Your task to perform on an android device: turn pop-ups off in chrome Image 0: 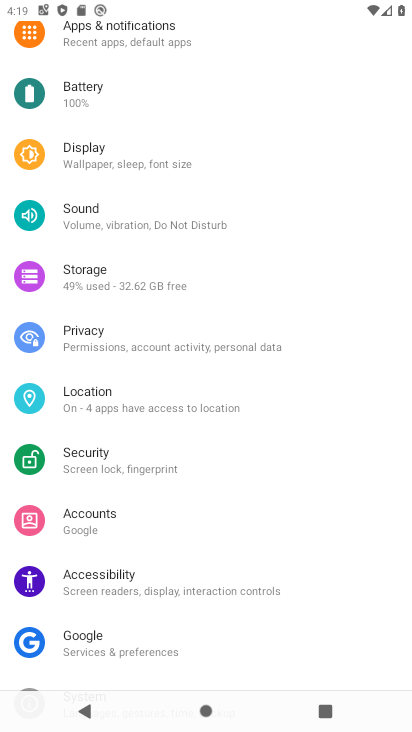
Step 0: press home button
Your task to perform on an android device: turn pop-ups off in chrome Image 1: 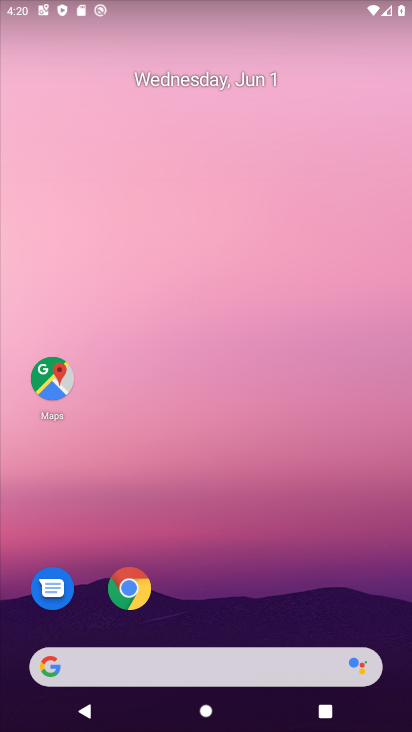
Step 1: click (138, 593)
Your task to perform on an android device: turn pop-ups off in chrome Image 2: 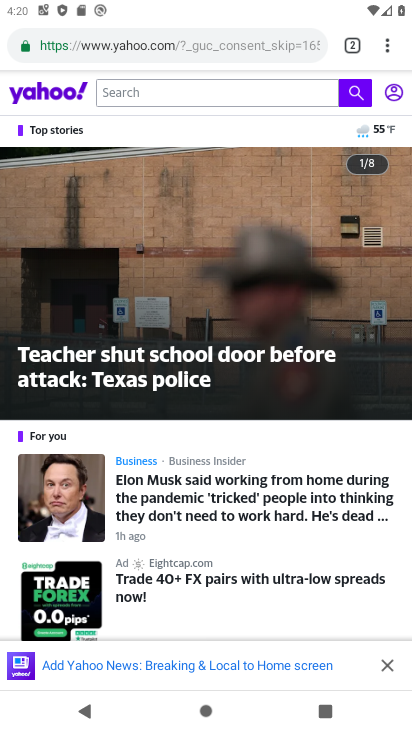
Step 2: click (385, 40)
Your task to perform on an android device: turn pop-ups off in chrome Image 3: 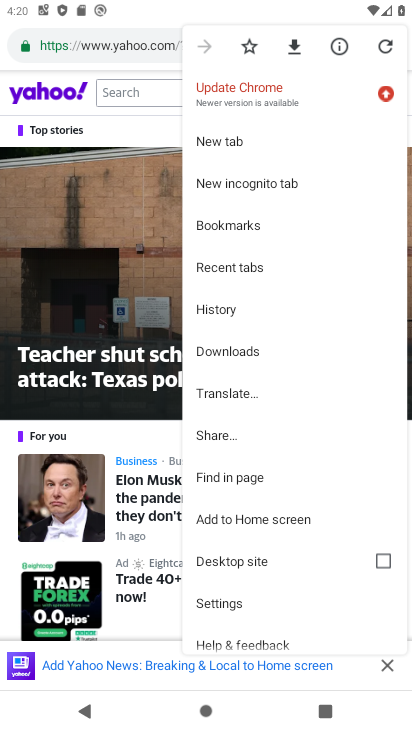
Step 3: click (233, 595)
Your task to perform on an android device: turn pop-ups off in chrome Image 4: 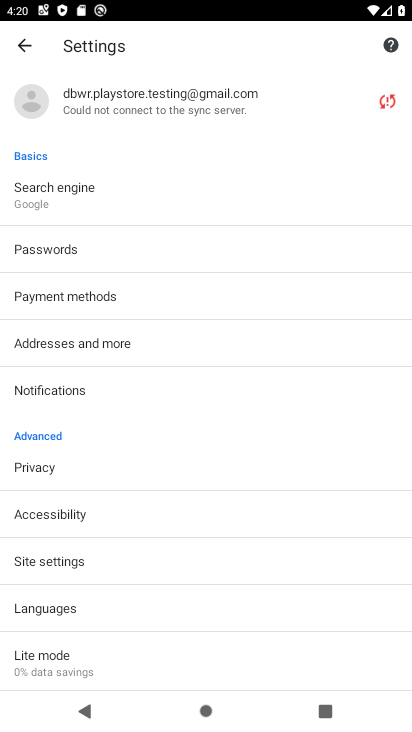
Step 4: click (129, 564)
Your task to perform on an android device: turn pop-ups off in chrome Image 5: 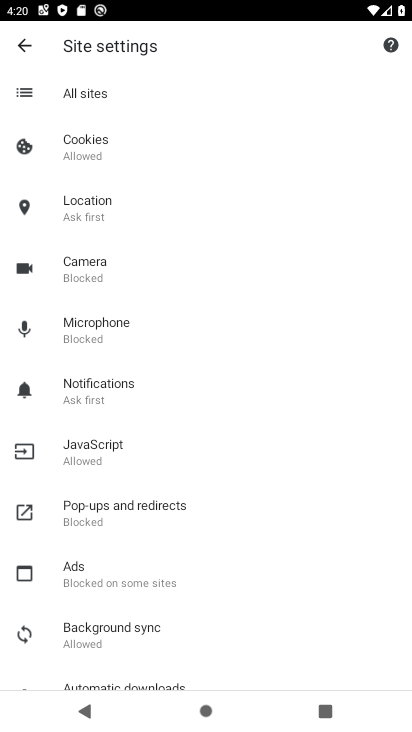
Step 5: click (145, 526)
Your task to perform on an android device: turn pop-ups off in chrome Image 6: 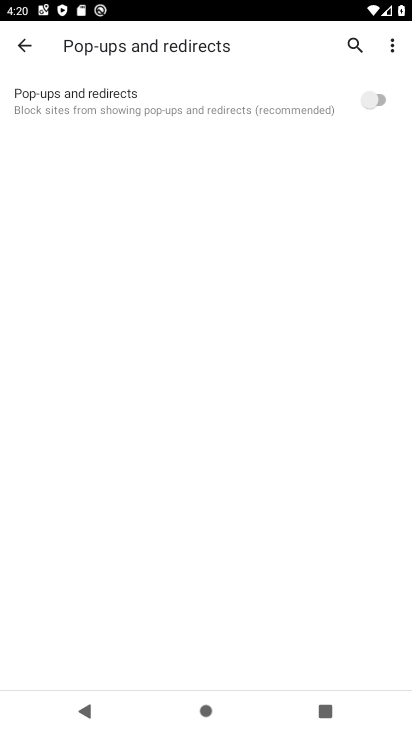
Step 6: task complete